Your task to perform on an android device: Do I have any events tomorrow? Image 0: 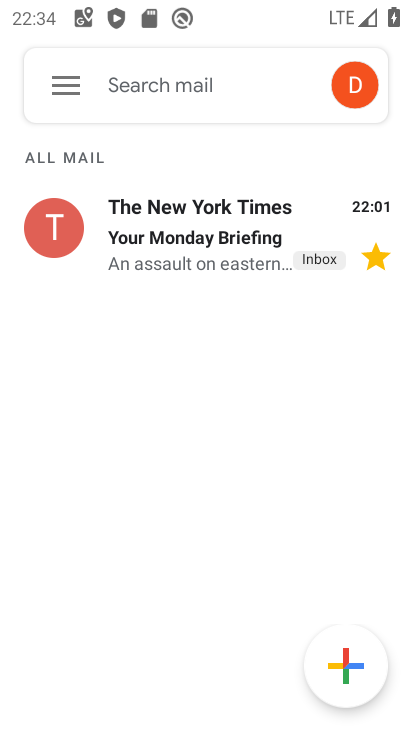
Step 0: press home button
Your task to perform on an android device: Do I have any events tomorrow? Image 1: 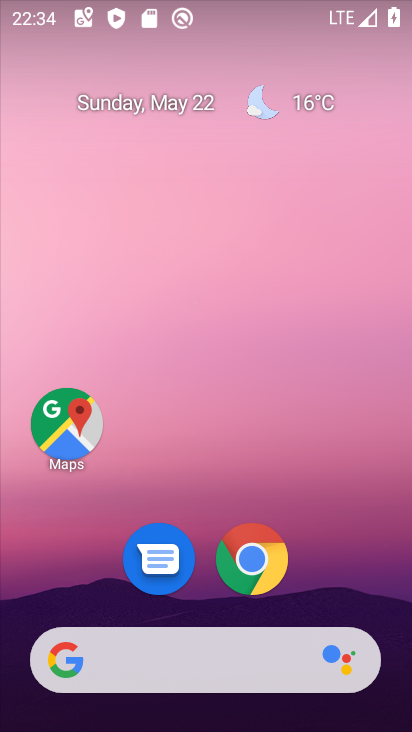
Step 1: drag from (245, 636) to (244, 234)
Your task to perform on an android device: Do I have any events tomorrow? Image 2: 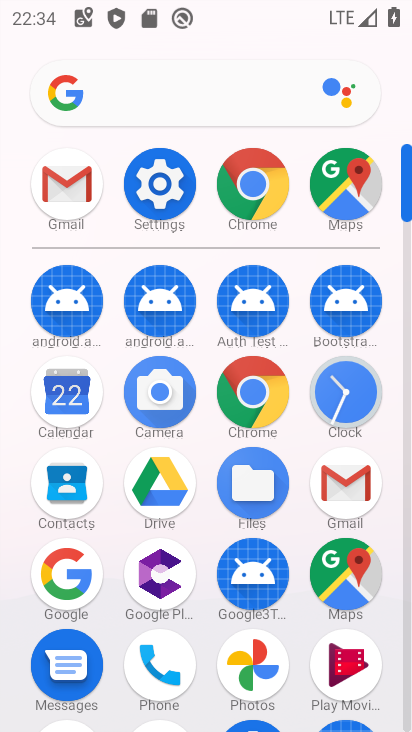
Step 2: click (68, 393)
Your task to perform on an android device: Do I have any events tomorrow? Image 3: 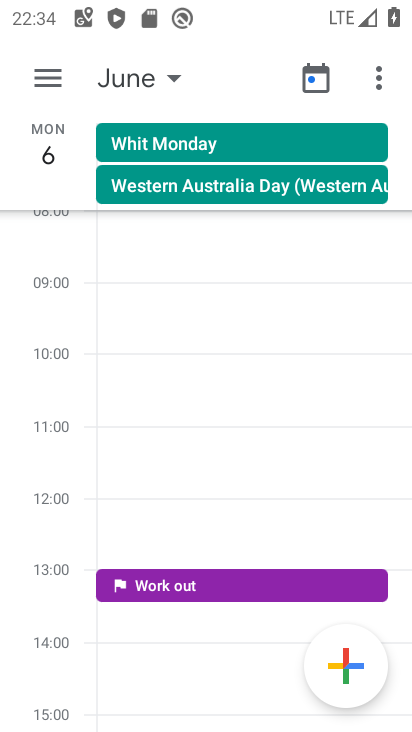
Step 3: click (30, 92)
Your task to perform on an android device: Do I have any events tomorrow? Image 4: 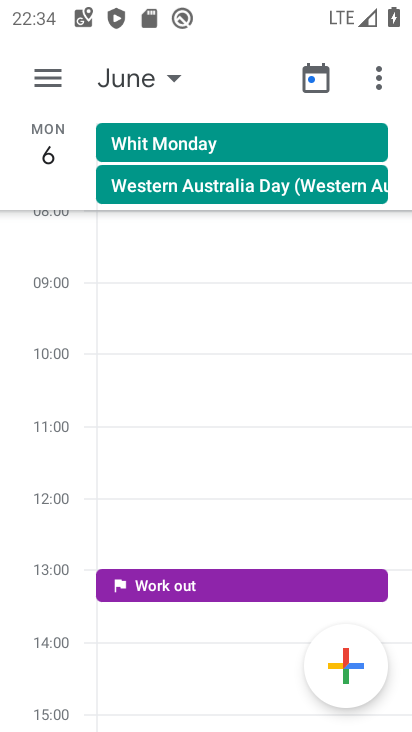
Step 4: click (48, 90)
Your task to perform on an android device: Do I have any events tomorrow? Image 5: 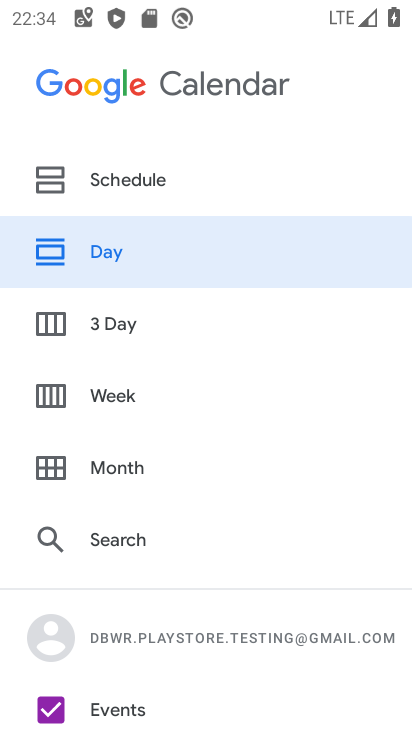
Step 5: click (157, 470)
Your task to perform on an android device: Do I have any events tomorrow? Image 6: 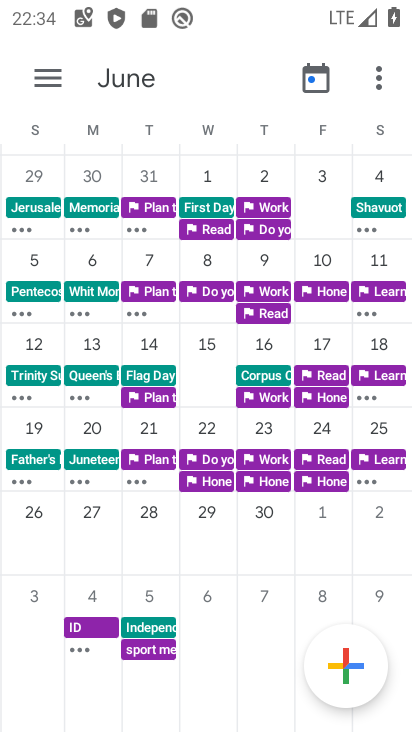
Step 6: drag from (37, 435) to (402, 339)
Your task to perform on an android device: Do I have any events tomorrow? Image 7: 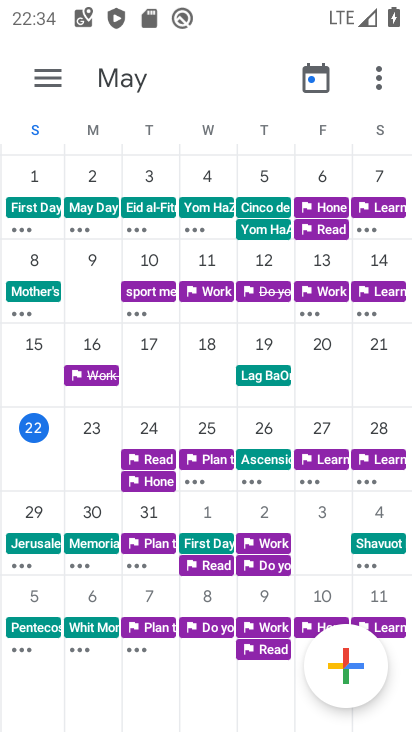
Step 7: click (91, 427)
Your task to perform on an android device: Do I have any events tomorrow? Image 8: 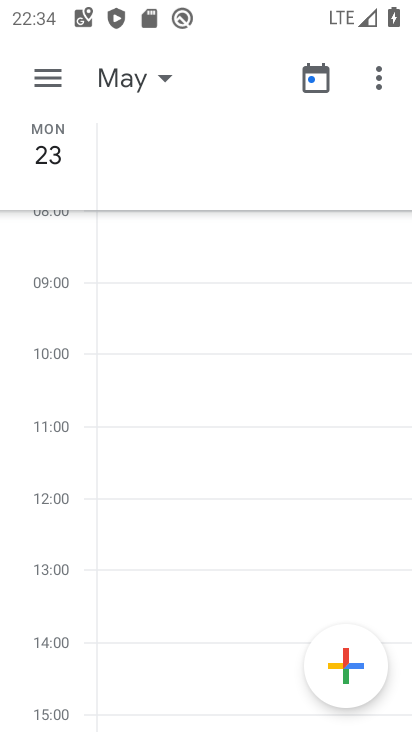
Step 8: click (38, 163)
Your task to perform on an android device: Do I have any events tomorrow? Image 9: 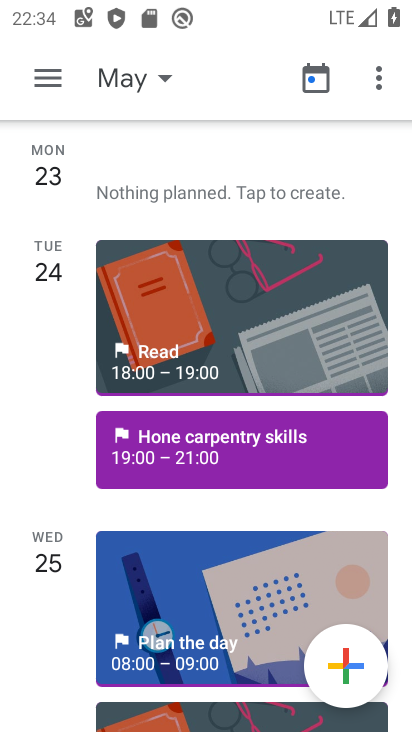
Step 9: task complete